Your task to perform on an android device: Search for vegetarian restaurants on Maps Image 0: 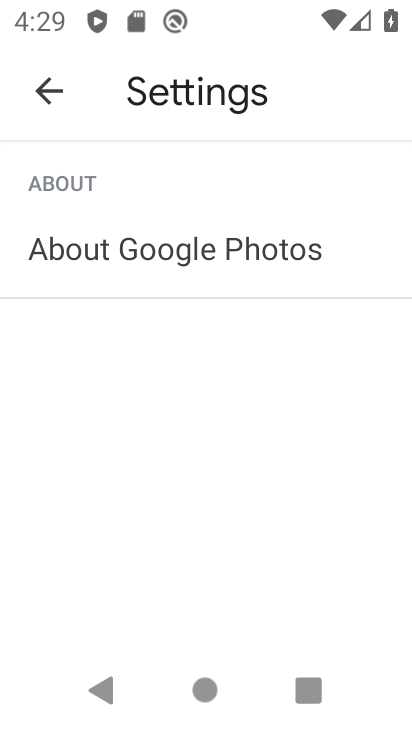
Step 0: press home button
Your task to perform on an android device: Search for vegetarian restaurants on Maps Image 1: 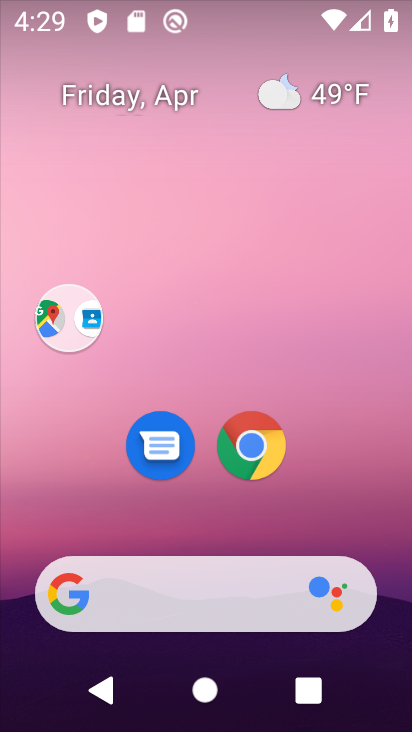
Step 1: drag from (318, 361) to (360, 93)
Your task to perform on an android device: Search for vegetarian restaurants on Maps Image 2: 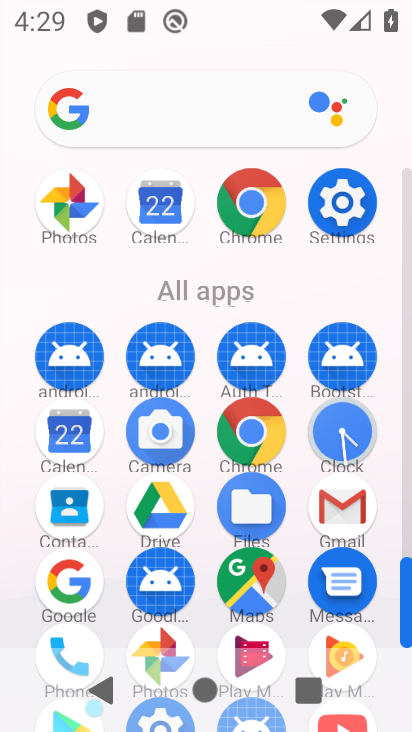
Step 2: click (256, 590)
Your task to perform on an android device: Search for vegetarian restaurants on Maps Image 3: 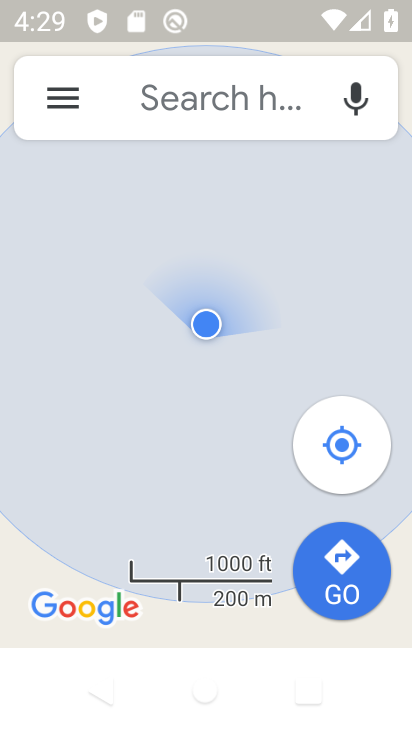
Step 3: click (200, 105)
Your task to perform on an android device: Search for vegetarian restaurants on Maps Image 4: 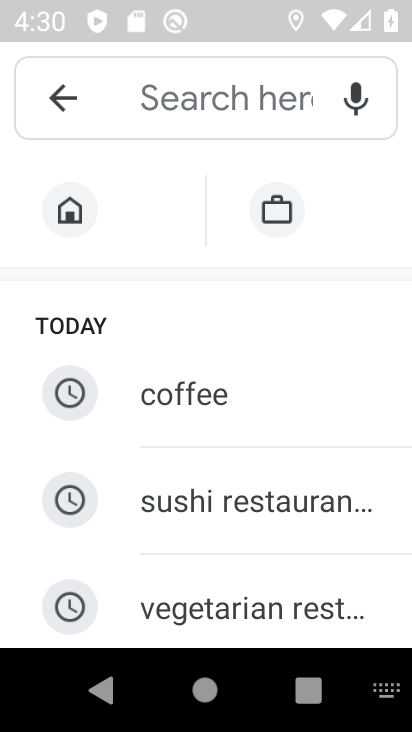
Step 4: type "vegeyarian restaurants"
Your task to perform on an android device: Search for vegetarian restaurants on Maps Image 5: 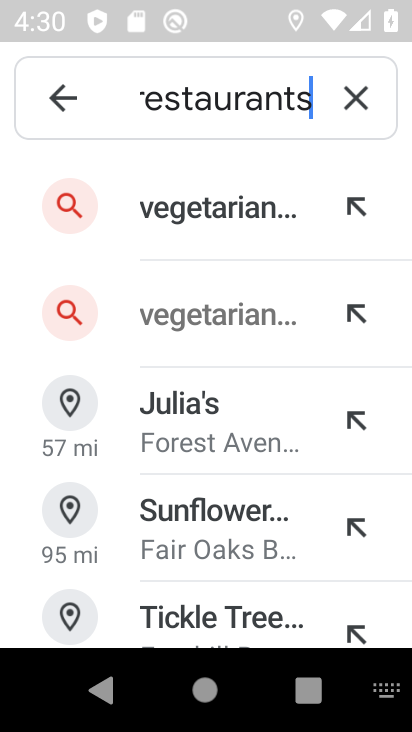
Step 5: press enter
Your task to perform on an android device: Search for vegetarian restaurants on Maps Image 6: 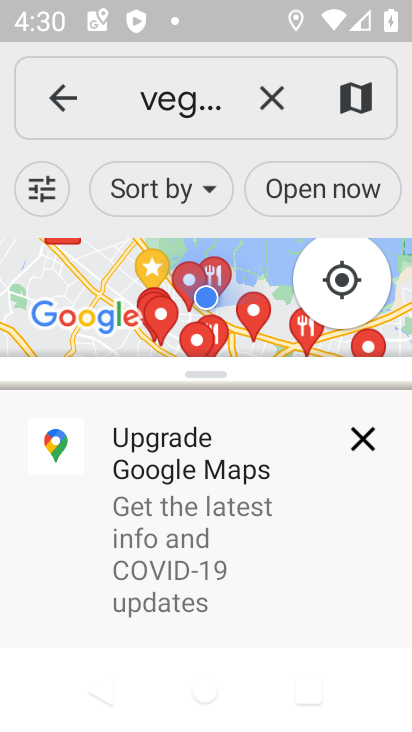
Step 6: click (360, 430)
Your task to perform on an android device: Search for vegetarian restaurants on Maps Image 7: 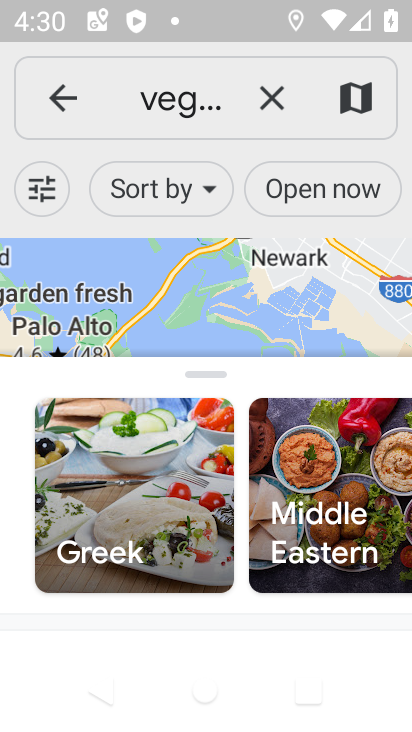
Step 7: task complete